Your task to perform on an android device: Search for pizza restaurants on Maps Image 0: 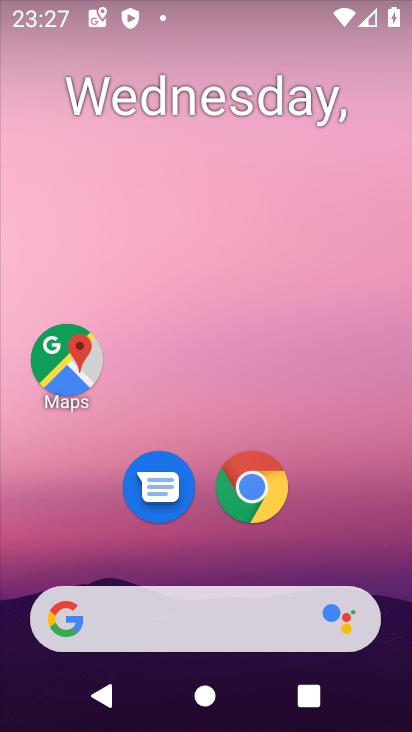
Step 0: click (74, 367)
Your task to perform on an android device: Search for pizza restaurants on Maps Image 1: 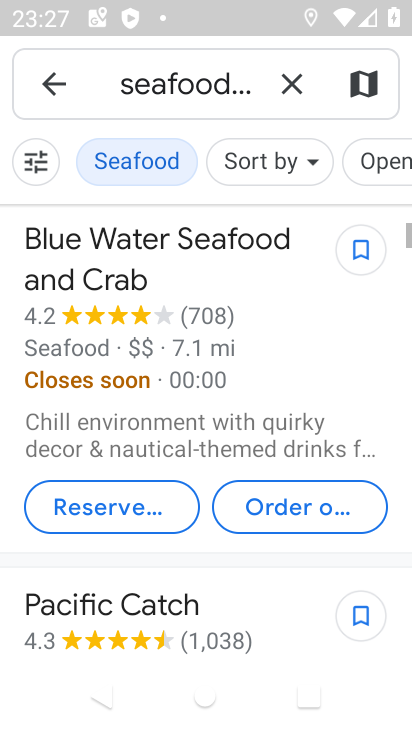
Step 1: click (282, 96)
Your task to perform on an android device: Search for pizza restaurants on Maps Image 2: 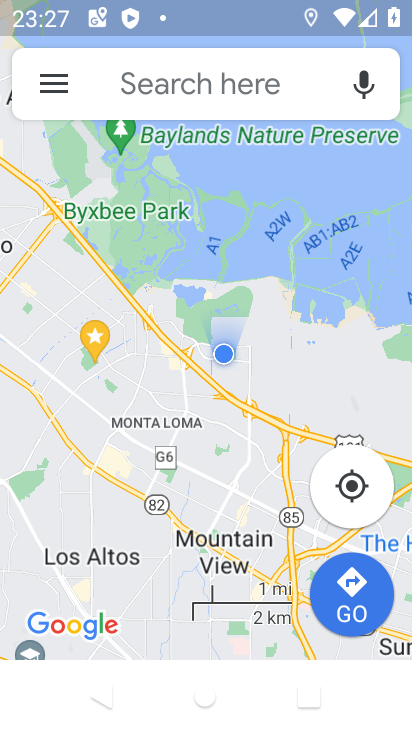
Step 2: click (125, 94)
Your task to perform on an android device: Search for pizza restaurants on Maps Image 3: 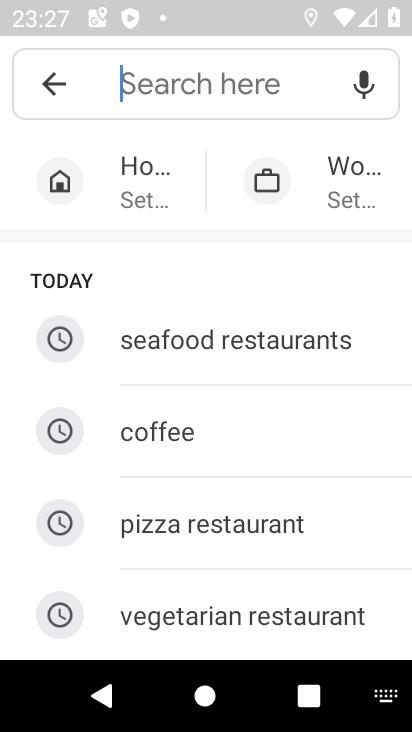
Step 3: type "pizza restaurant "
Your task to perform on an android device: Search for pizza restaurants on Maps Image 4: 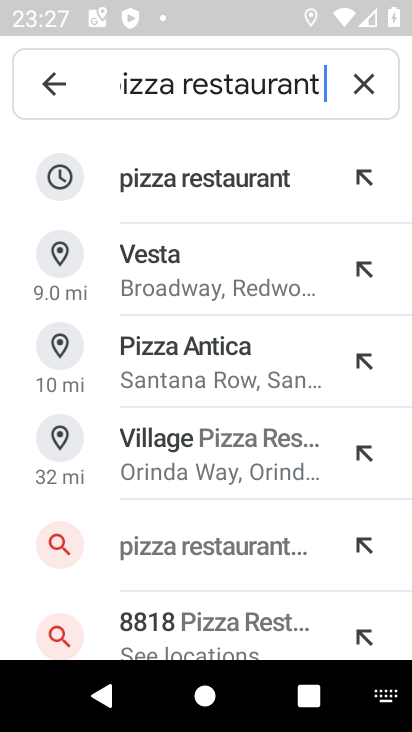
Step 4: click (155, 187)
Your task to perform on an android device: Search for pizza restaurants on Maps Image 5: 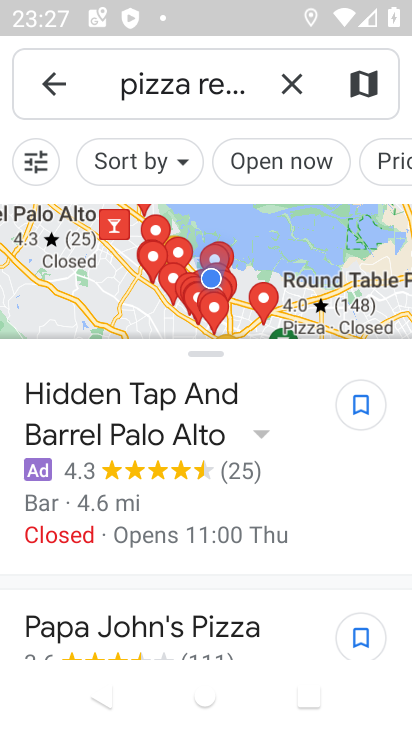
Step 5: task complete